Your task to perform on an android device: open a bookmark in the chrome app Image 0: 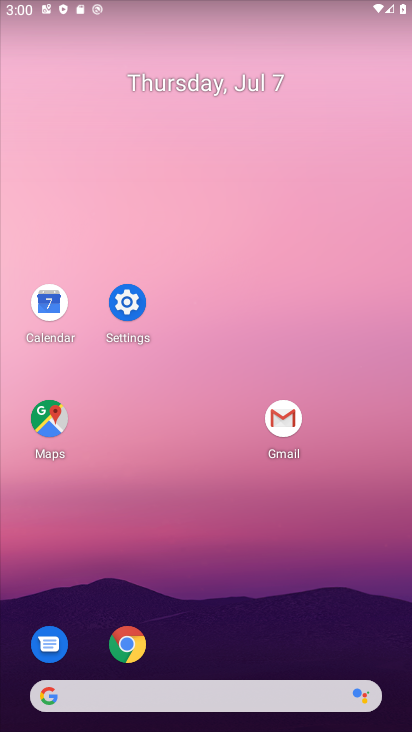
Step 0: click (129, 644)
Your task to perform on an android device: open a bookmark in the chrome app Image 1: 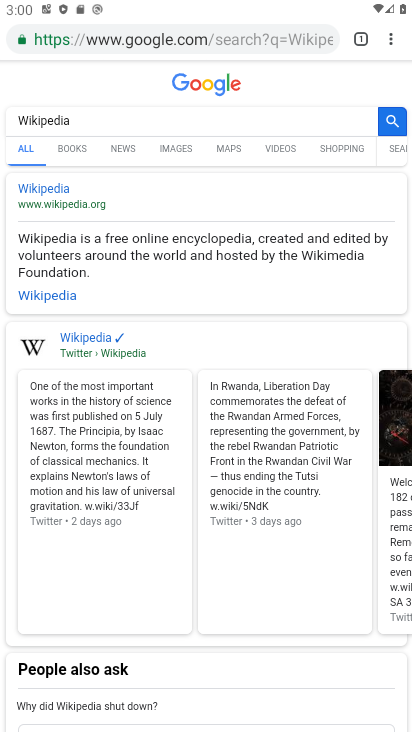
Step 1: click (390, 44)
Your task to perform on an android device: open a bookmark in the chrome app Image 2: 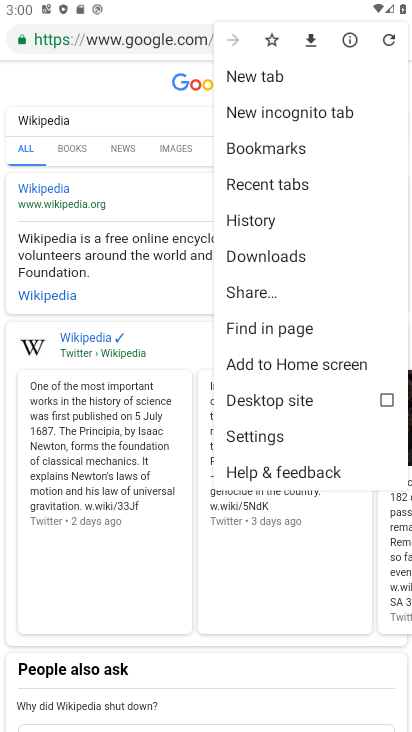
Step 2: click (274, 147)
Your task to perform on an android device: open a bookmark in the chrome app Image 3: 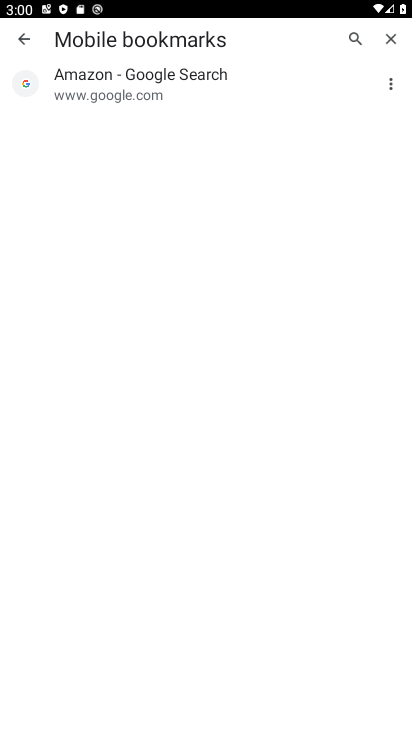
Step 3: click (390, 81)
Your task to perform on an android device: open a bookmark in the chrome app Image 4: 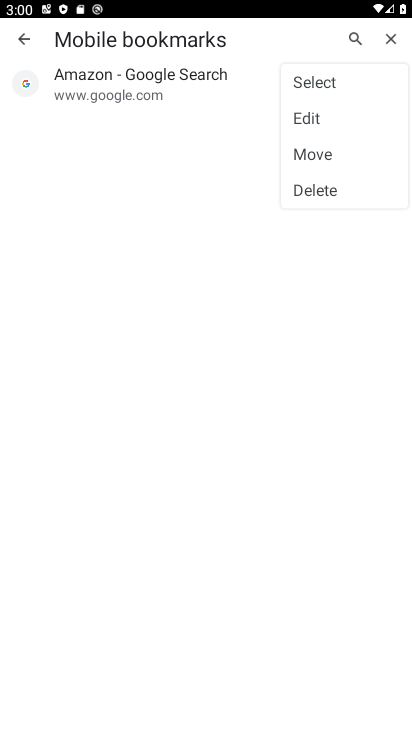
Step 4: click (207, 140)
Your task to perform on an android device: open a bookmark in the chrome app Image 5: 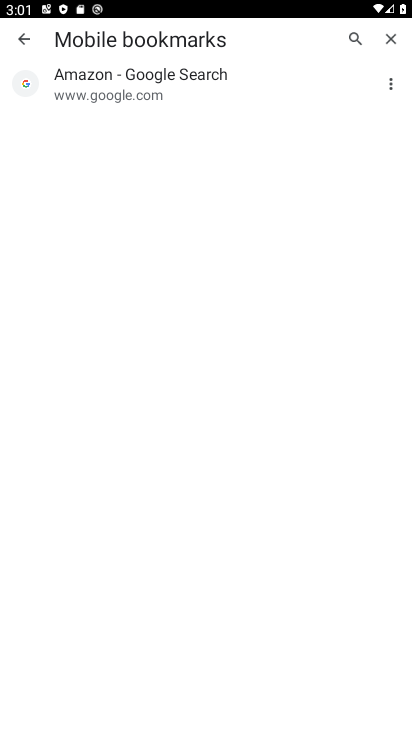
Step 5: click (136, 83)
Your task to perform on an android device: open a bookmark in the chrome app Image 6: 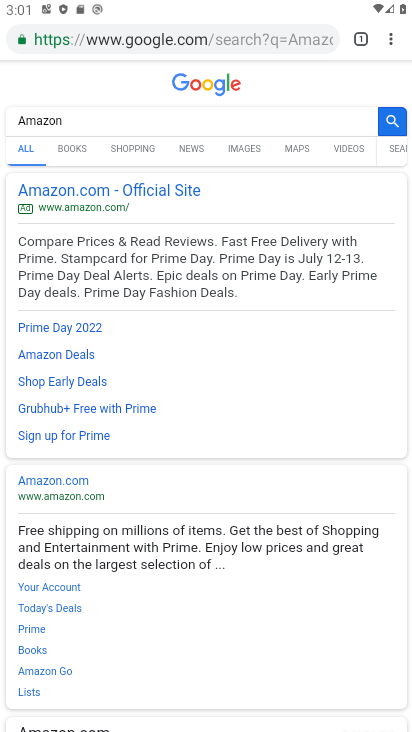
Step 6: task complete